Your task to perform on an android device: turn pop-ups off in chrome Image 0: 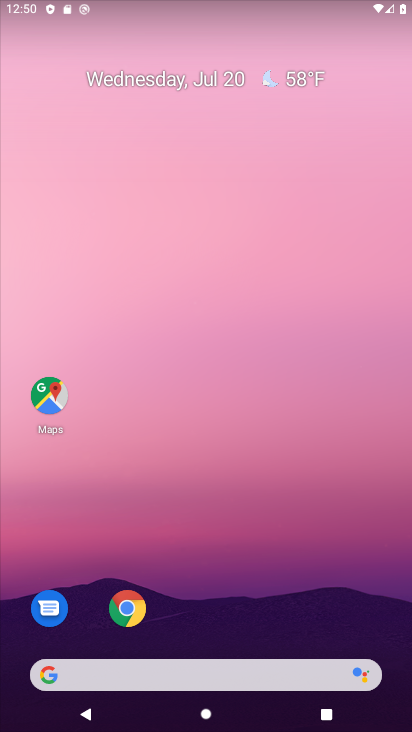
Step 0: click (130, 600)
Your task to perform on an android device: turn pop-ups off in chrome Image 1: 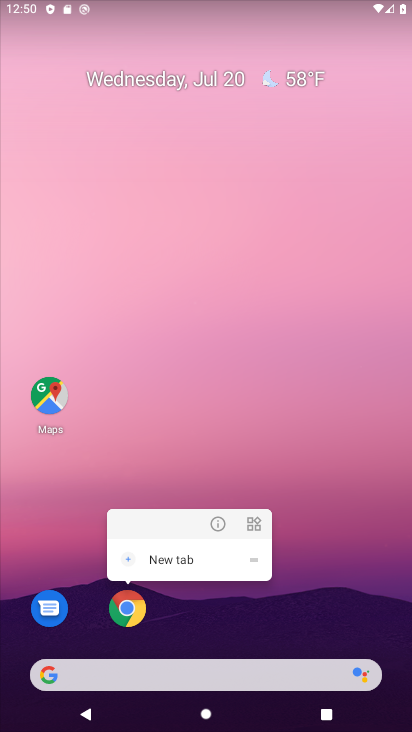
Step 1: click (130, 600)
Your task to perform on an android device: turn pop-ups off in chrome Image 2: 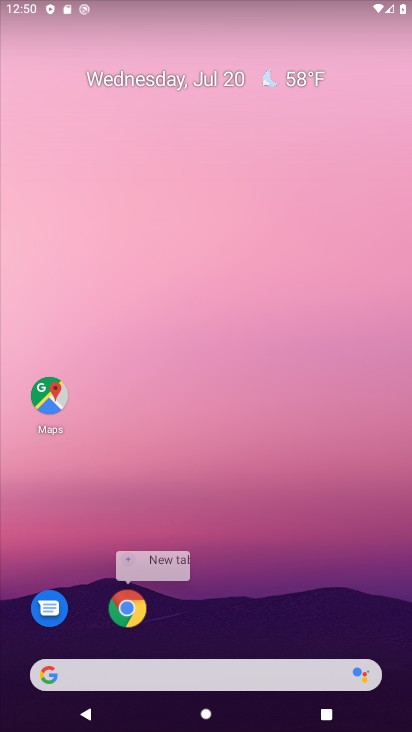
Step 2: click (130, 600)
Your task to perform on an android device: turn pop-ups off in chrome Image 3: 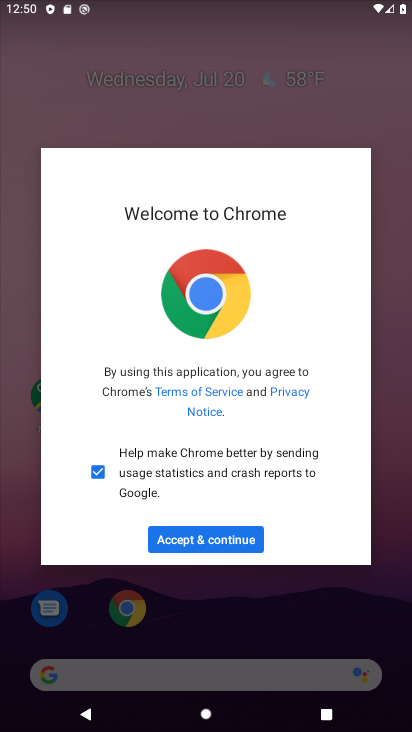
Step 3: click (243, 540)
Your task to perform on an android device: turn pop-ups off in chrome Image 4: 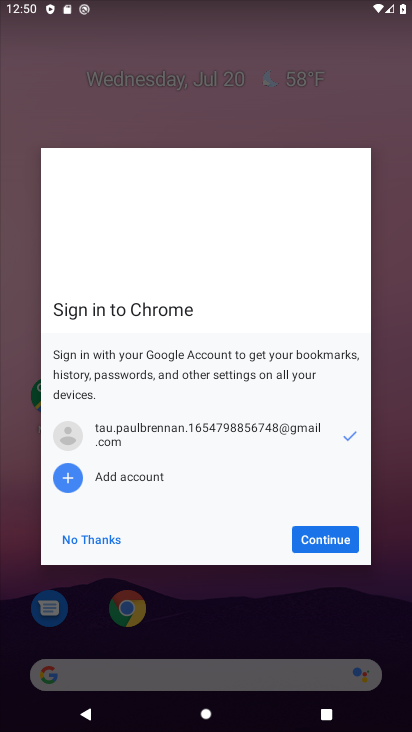
Step 4: click (323, 537)
Your task to perform on an android device: turn pop-ups off in chrome Image 5: 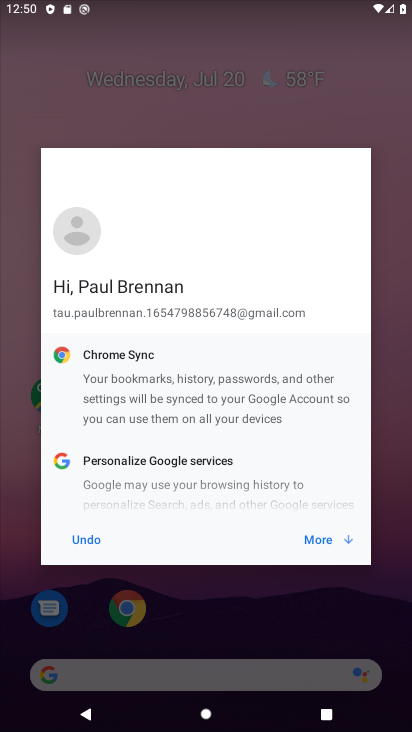
Step 5: click (323, 537)
Your task to perform on an android device: turn pop-ups off in chrome Image 6: 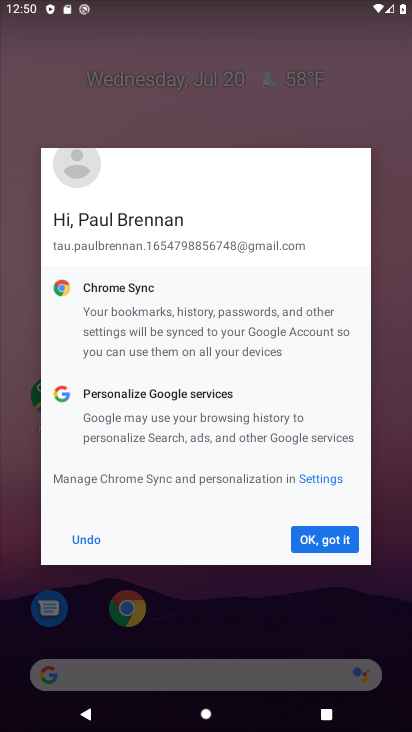
Step 6: click (323, 537)
Your task to perform on an android device: turn pop-ups off in chrome Image 7: 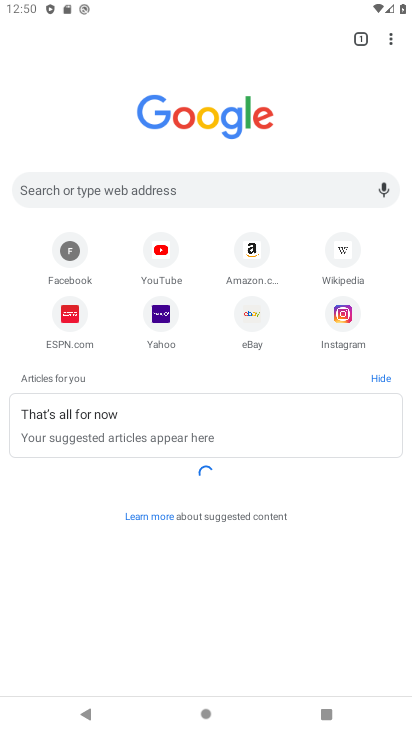
Step 7: click (395, 34)
Your task to perform on an android device: turn pop-ups off in chrome Image 8: 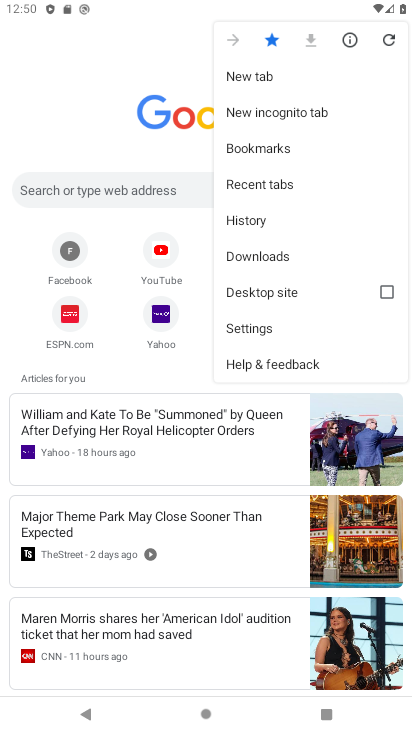
Step 8: click (256, 330)
Your task to perform on an android device: turn pop-ups off in chrome Image 9: 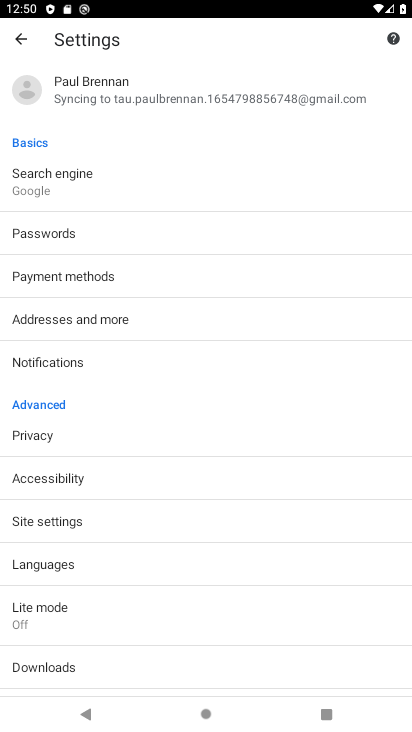
Step 9: click (76, 523)
Your task to perform on an android device: turn pop-ups off in chrome Image 10: 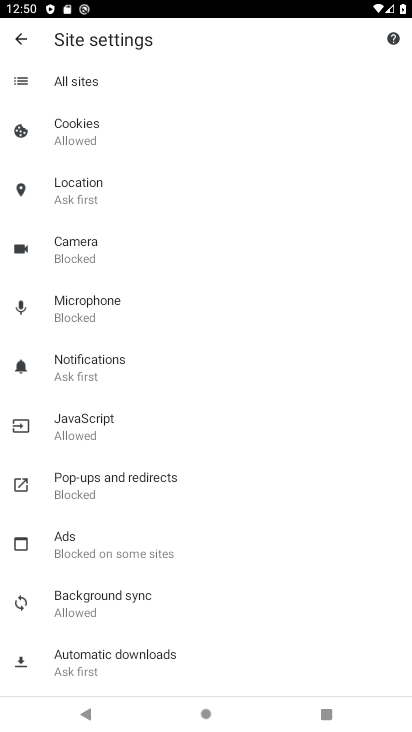
Step 10: click (126, 495)
Your task to perform on an android device: turn pop-ups off in chrome Image 11: 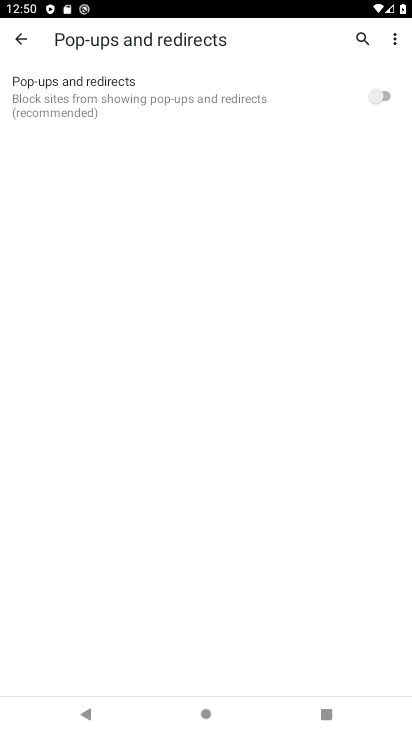
Step 11: task complete